Your task to perform on an android device: Open wifi settings Image 0: 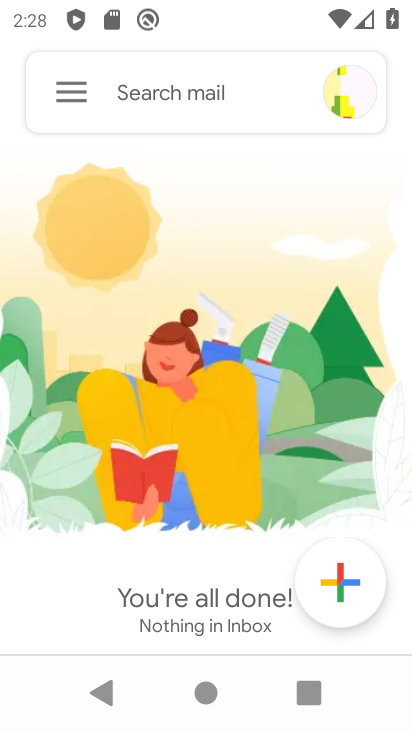
Step 0: press home button
Your task to perform on an android device: Open wifi settings Image 1: 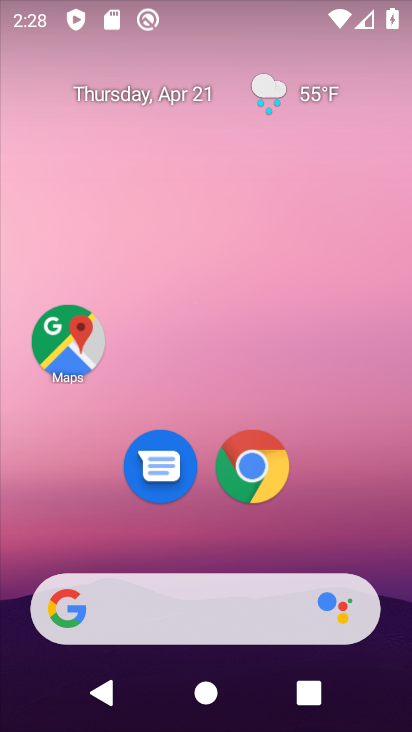
Step 1: drag from (222, 547) to (267, 54)
Your task to perform on an android device: Open wifi settings Image 2: 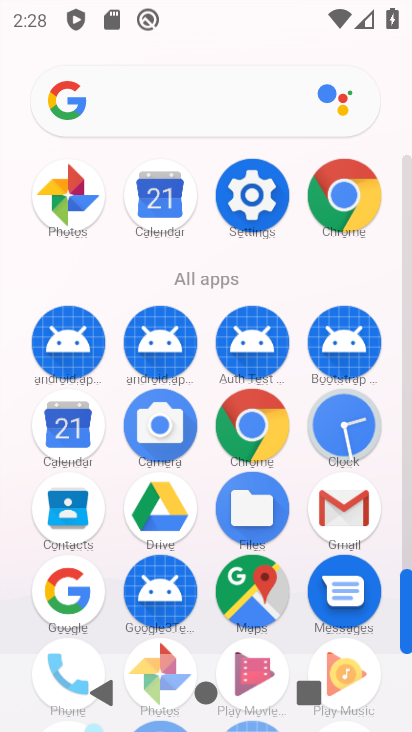
Step 2: click (253, 180)
Your task to perform on an android device: Open wifi settings Image 3: 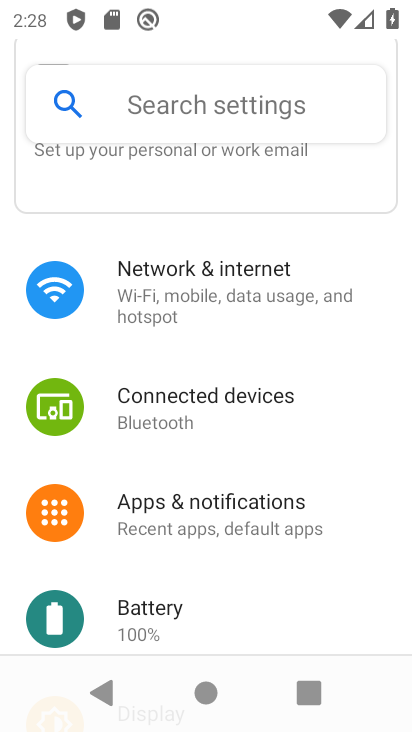
Step 3: click (243, 303)
Your task to perform on an android device: Open wifi settings Image 4: 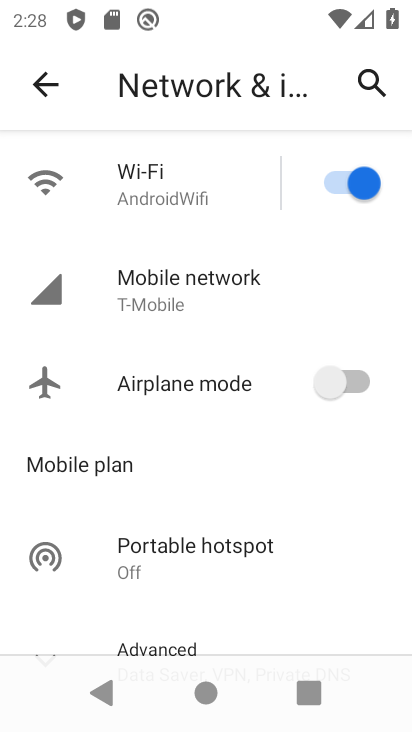
Step 4: click (208, 203)
Your task to perform on an android device: Open wifi settings Image 5: 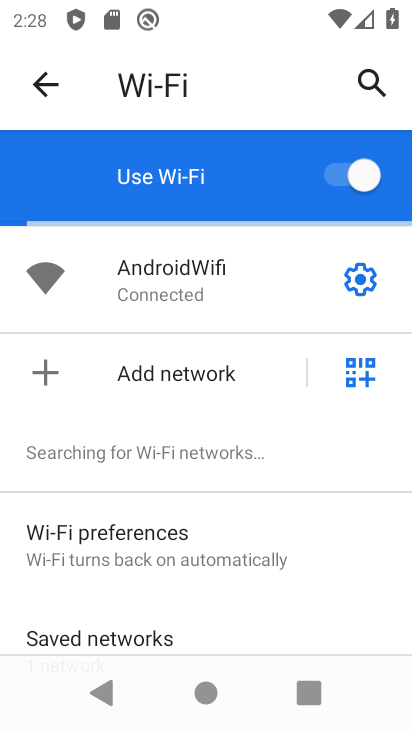
Step 5: task complete